Your task to perform on an android device: change alarm snooze length Image 0: 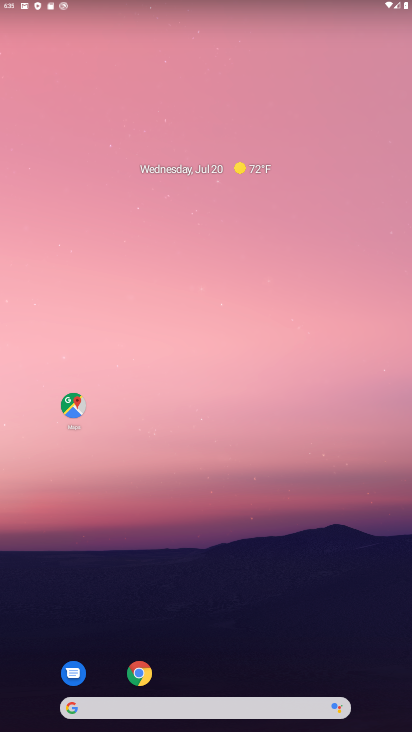
Step 0: drag from (298, 653) to (211, 32)
Your task to perform on an android device: change alarm snooze length Image 1: 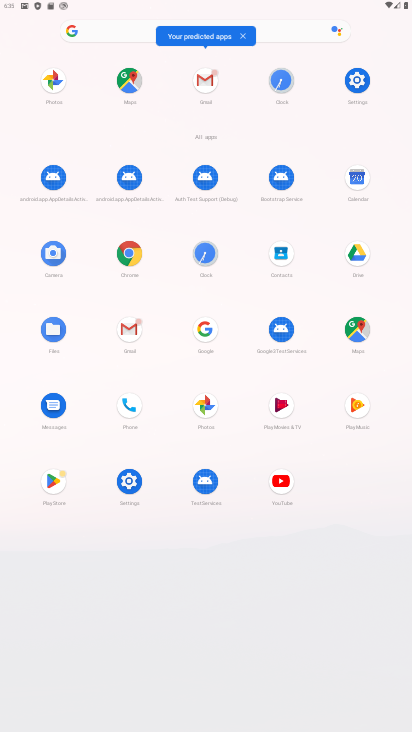
Step 1: click (204, 256)
Your task to perform on an android device: change alarm snooze length Image 2: 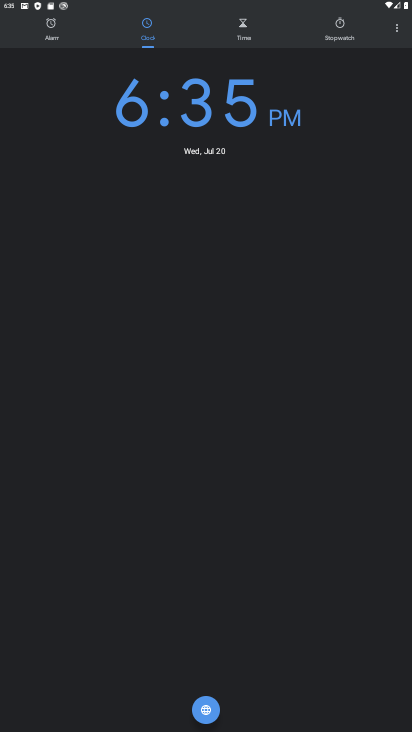
Step 2: click (396, 29)
Your task to perform on an android device: change alarm snooze length Image 3: 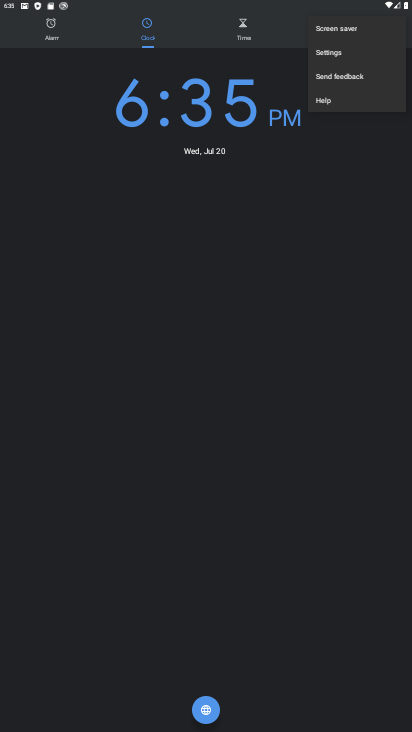
Step 3: click (339, 59)
Your task to perform on an android device: change alarm snooze length Image 4: 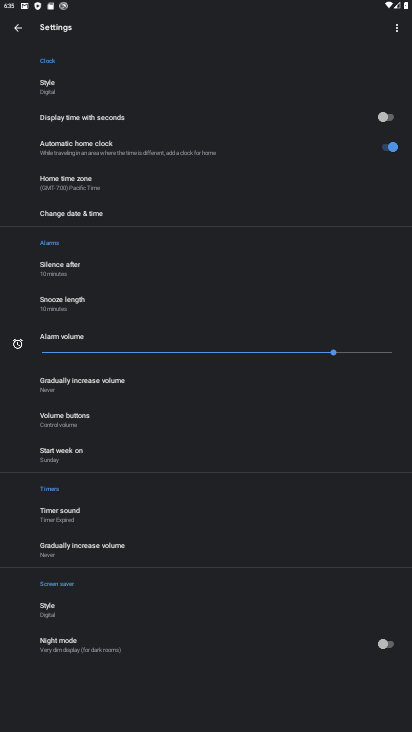
Step 4: click (63, 311)
Your task to perform on an android device: change alarm snooze length Image 5: 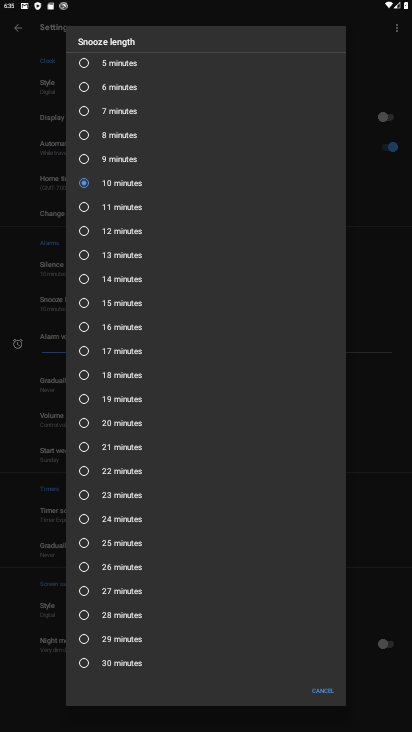
Step 5: click (86, 328)
Your task to perform on an android device: change alarm snooze length Image 6: 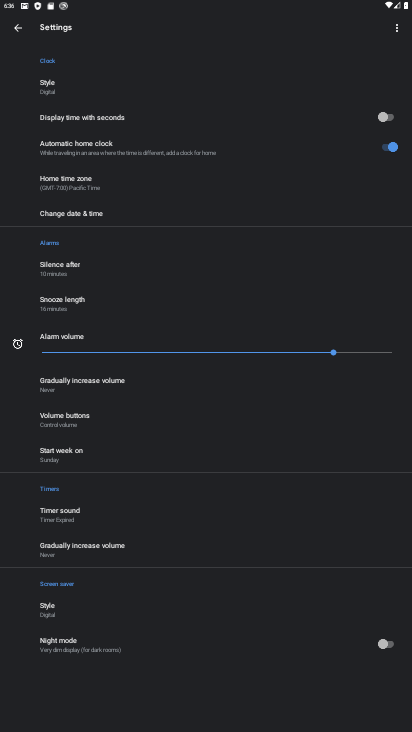
Step 6: task complete